Your task to perform on an android device: change text size in settings app Image 0: 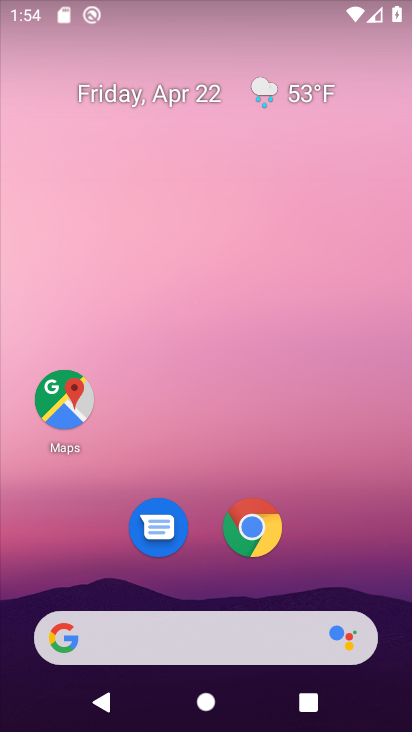
Step 0: drag from (358, 573) to (261, 14)
Your task to perform on an android device: change text size in settings app Image 1: 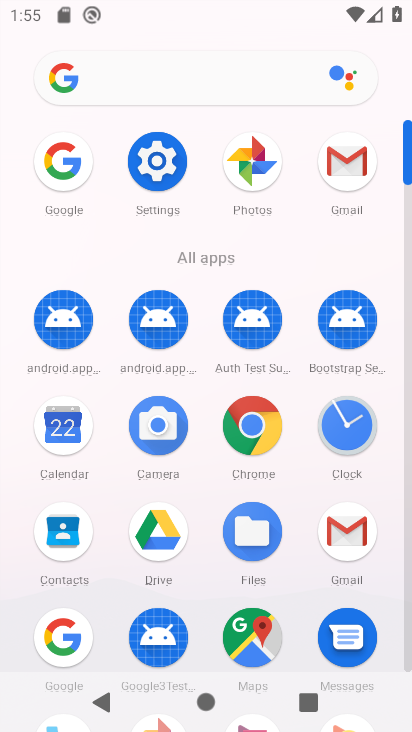
Step 1: click (154, 181)
Your task to perform on an android device: change text size in settings app Image 2: 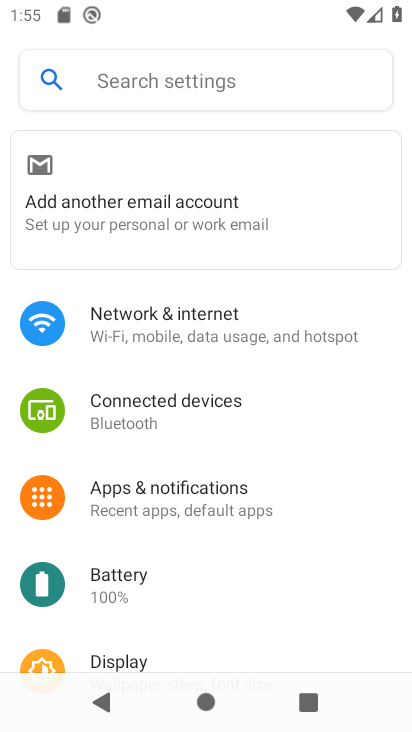
Step 2: click (138, 656)
Your task to perform on an android device: change text size in settings app Image 3: 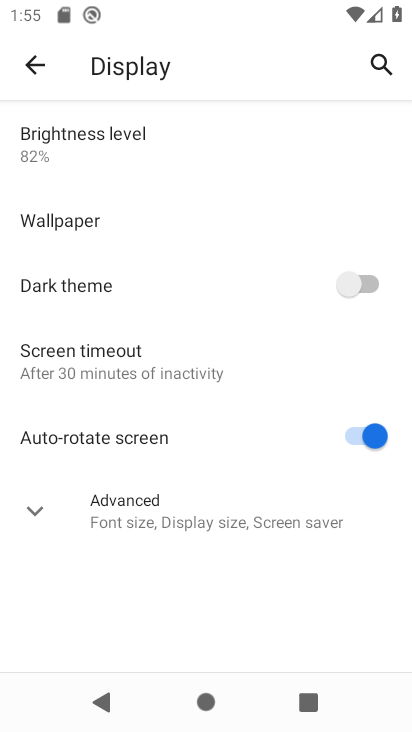
Step 3: click (91, 535)
Your task to perform on an android device: change text size in settings app Image 4: 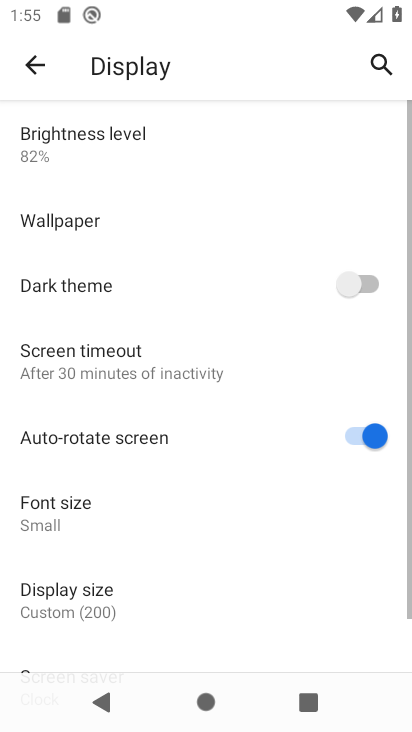
Step 4: click (102, 516)
Your task to perform on an android device: change text size in settings app Image 5: 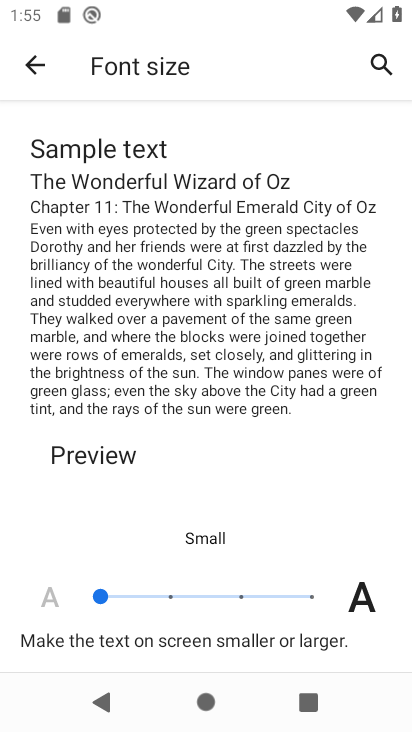
Step 5: drag from (103, 586) to (170, 592)
Your task to perform on an android device: change text size in settings app Image 6: 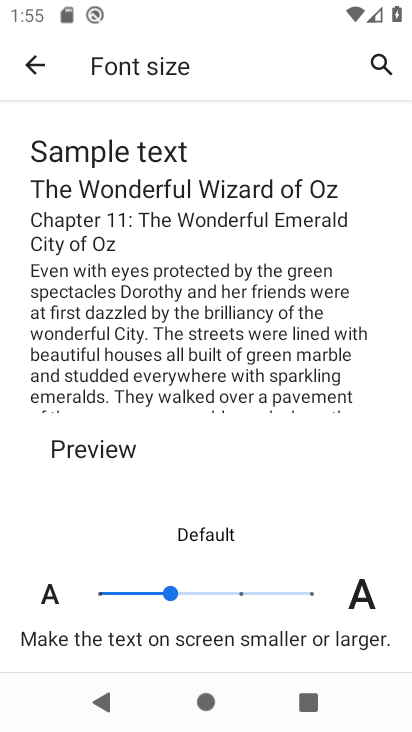
Step 6: click (51, 65)
Your task to perform on an android device: change text size in settings app Image 7: 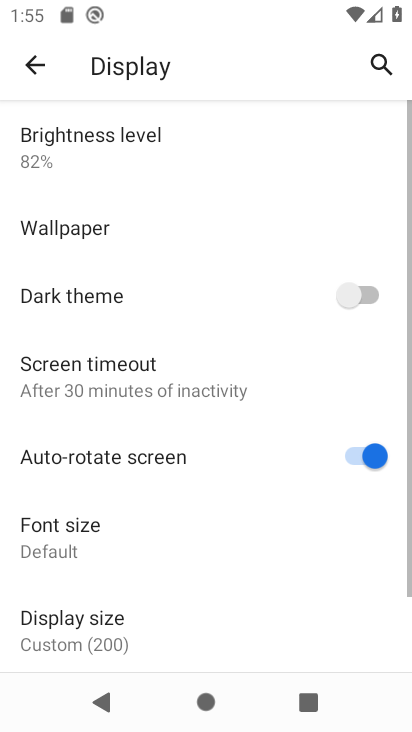
Step 7: task complete